Your task to perform on an android device: What's on my calendar today? Image 0: 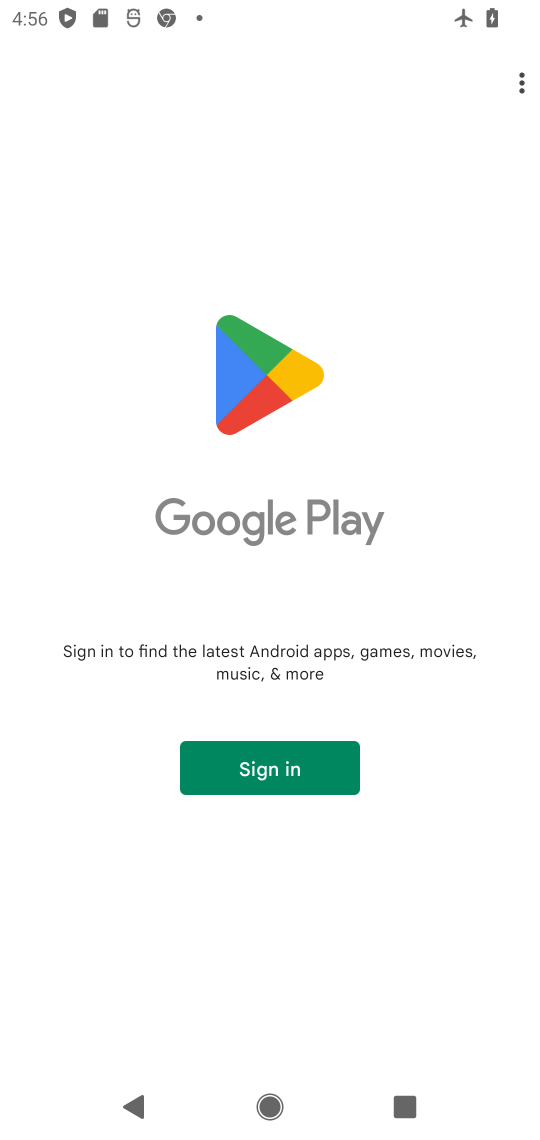
Step 0: press home button
Your task to perform on an android device: What's on my calendar today? Image 1: 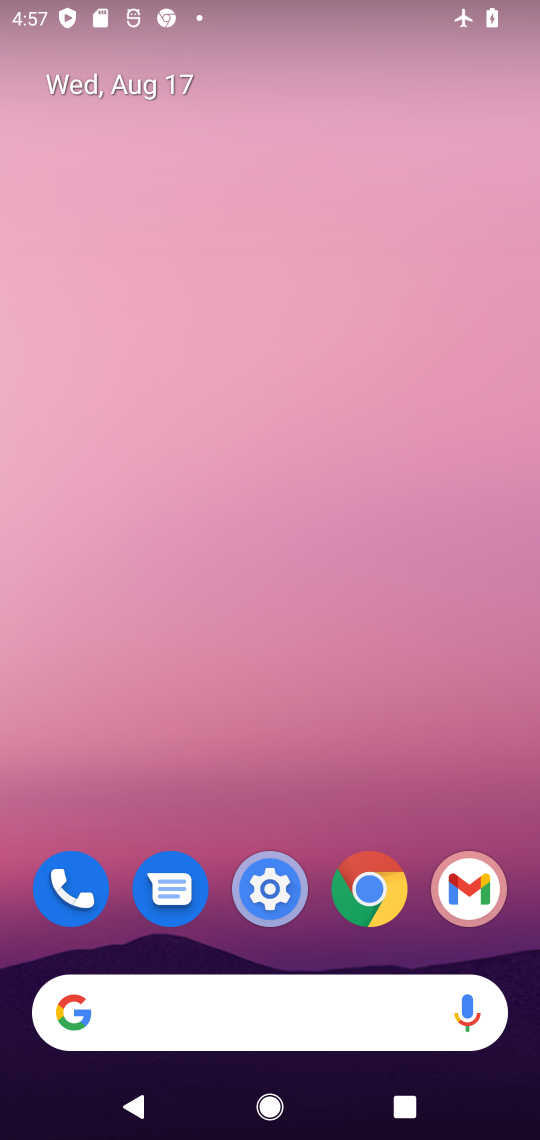
Step 1: drag from (294, 787) to (251, 8)
Your task to perform on an android device: What's on my calendar today? Image 2: 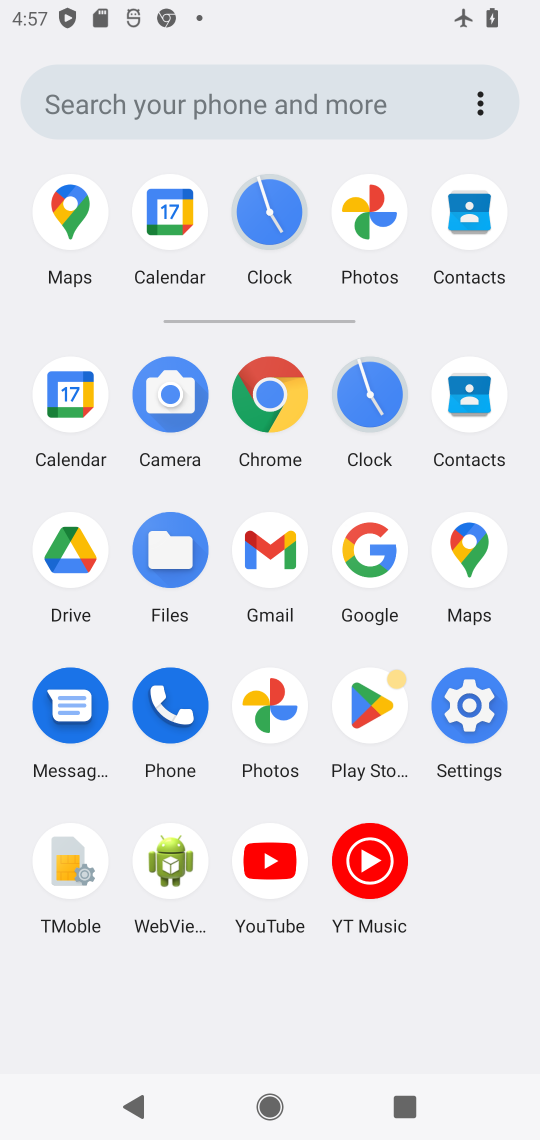
Step 2: click (75, 394)
Your task to perform on an android device: What's on my calendar today? Image 3: 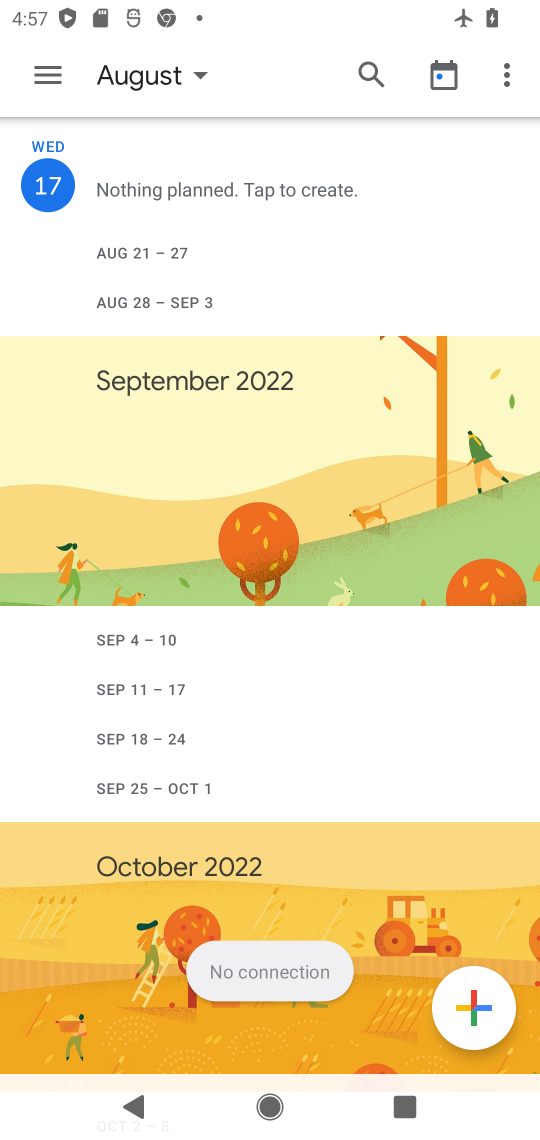
Step 3: click (48, 74)
Your task to perform on an android device: What's on my calendar today? Image 4: 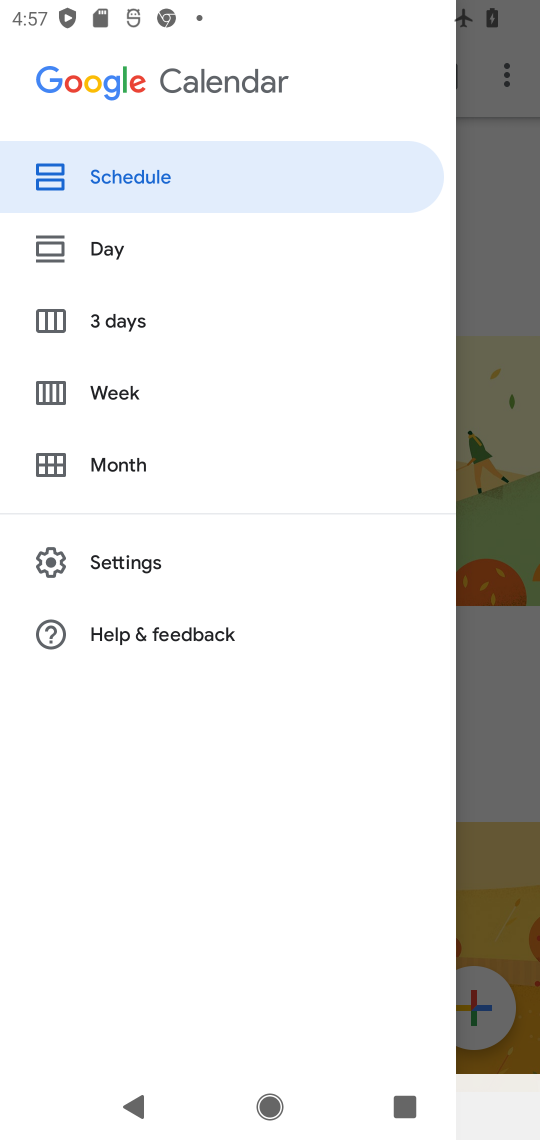
Step 4: click (115, 238)
Your task to perform on an android device: What's on my calendar today? Image 5: 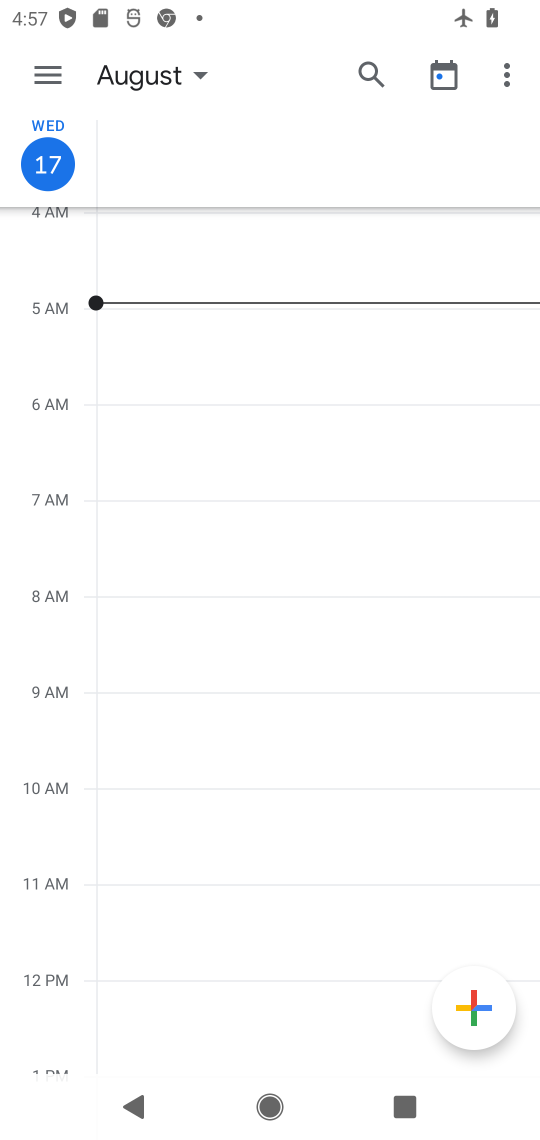
Step 5: task complete